Your task to perform on an android device: Do I have any events today? Image 0: 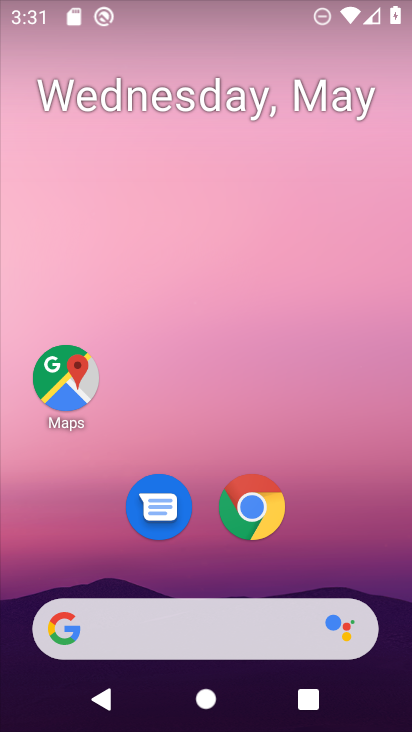
Step 0: drag from (200, 514) to (281, 8)
Your task to perform on an android device: Do I have any events today? Image 1: 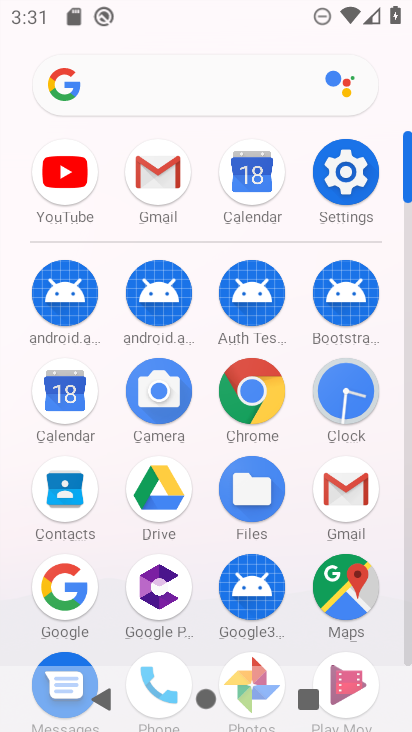
Step 1: click (66, 396)
Your task to perform on an android device: Do I have any events today? Image 2: 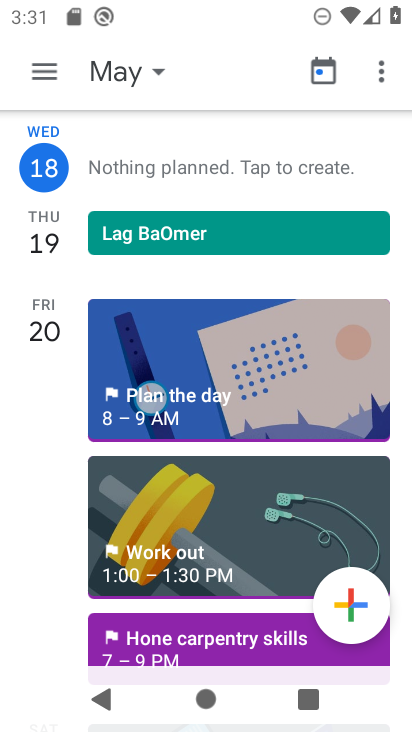
Step 2: task complete